Your task to perform on an android device: Go to Maps Image 0: 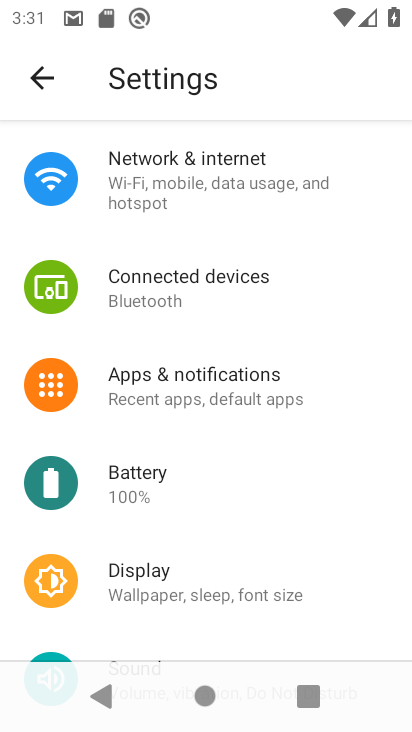
Step 0: press home button
Your task to perform on an android device: Go to Maps Image 1: 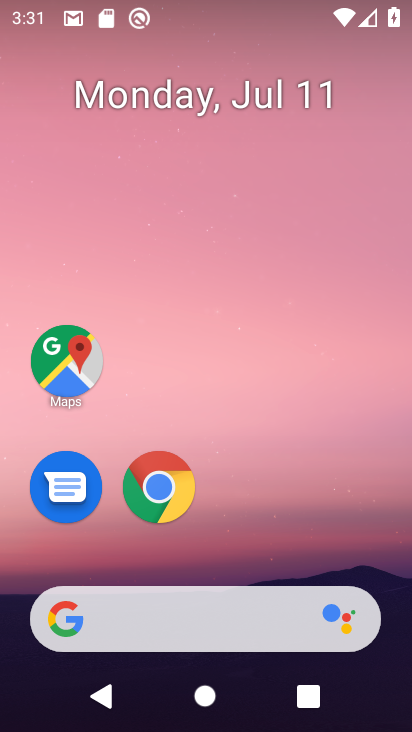
Step 1: drag from (230, 407) to (310, 15)
Your task to perform on an android device: Go to Maps Image 2: 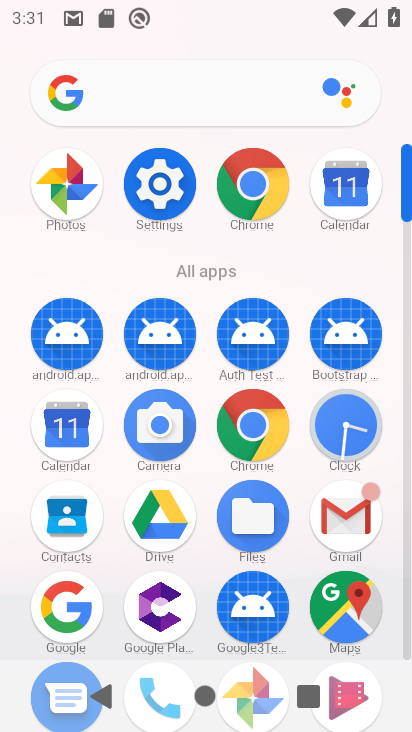
Step 2: click (341, 626)
Your task to perform on an android device: Go to Maps Image 3: 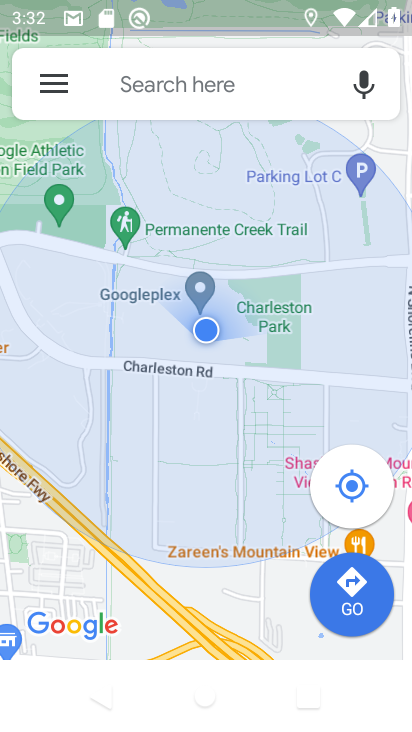
Step 3: task complete